Your task to perform on an android device: Open the calendar and show me this week's events Image 0: 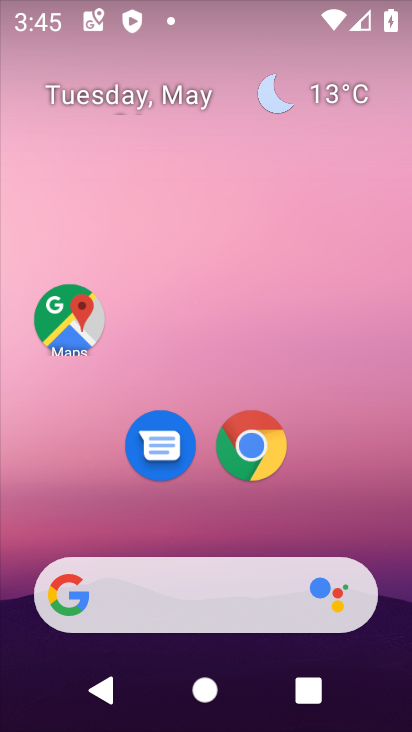
Step 0: click (217, 76)
Your task to perform on an android device: Open the calendar and show me this week's events Image 1: 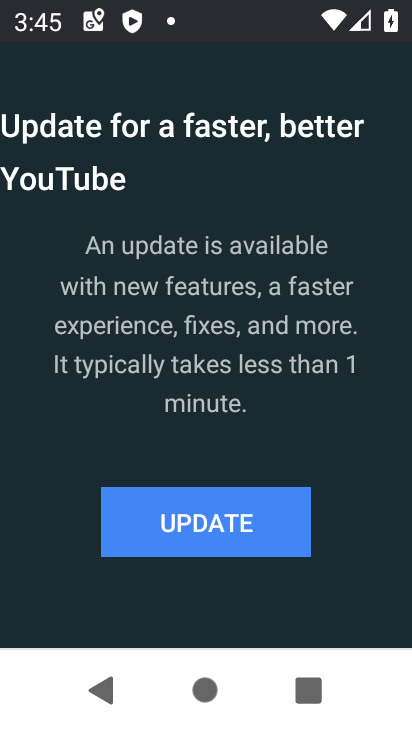
Step 1: press home button
Your task to perform on an android device: Open the calendar and show me this week's events Image 2: 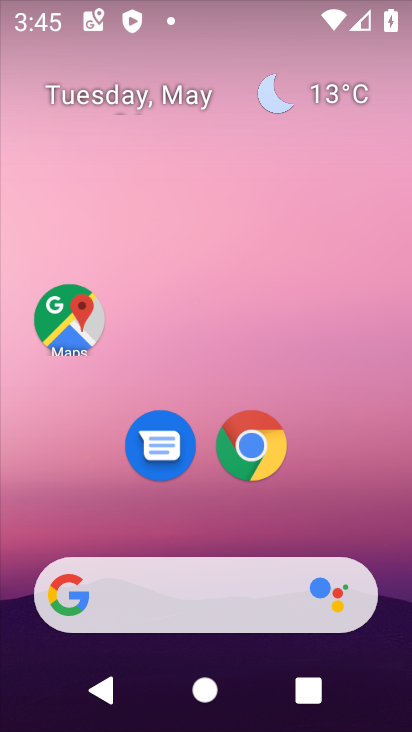
Step 2: drag from (210, 536) to (208, 57)
Your task to perform on an android device: Open the calendar and show me this week's events Image 3: 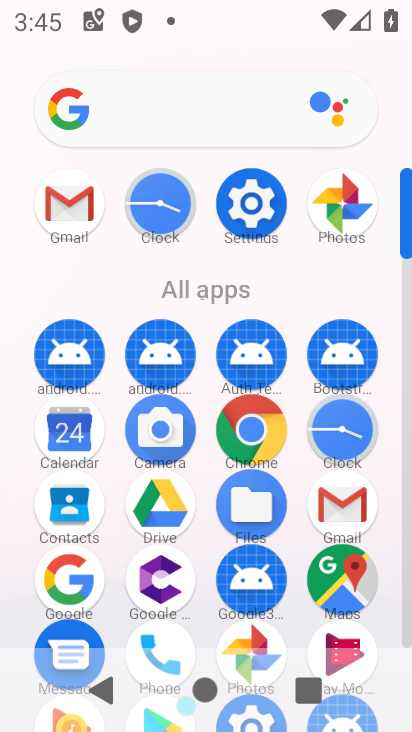
Step 3: click (70, 425)
Your task to perform on an android device: Open the calendar and show me this week's events Image 4: 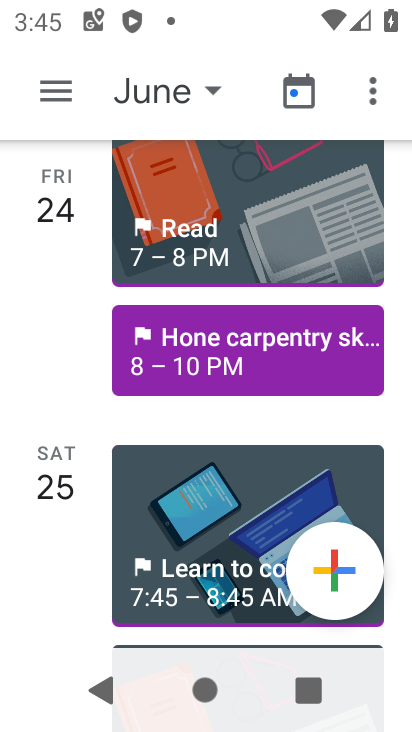
Step 4: click (211, 81)
Your task to perform on an android device: Open the calendar and show me this week's events Image 5: 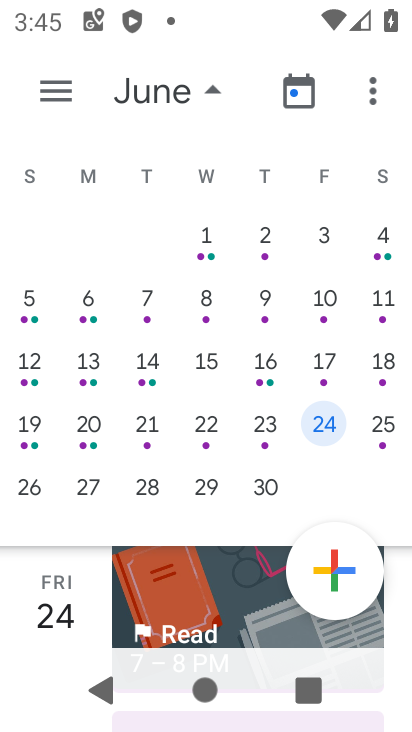
Step 5: drag from (59, 353) to (388, 382)
Your task to perform on an android device: Open the calendar and show me this week's events Image 6: 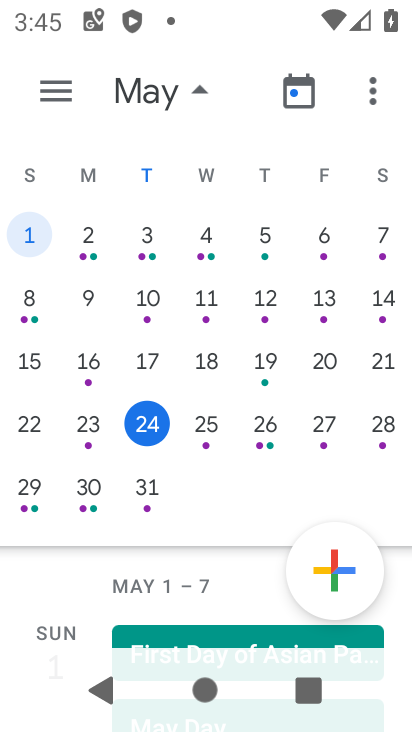
Step 6: click (151, 422)
Your task to perform on an android device: Open the calendar and show me this week's events Image 7: 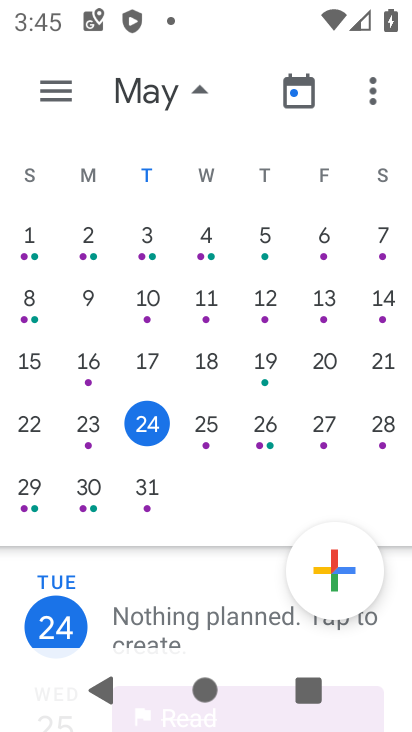
Step 7: click (55, 94)
Your task to perform on an android device: Open the calendar and show me this week's events Image 8: 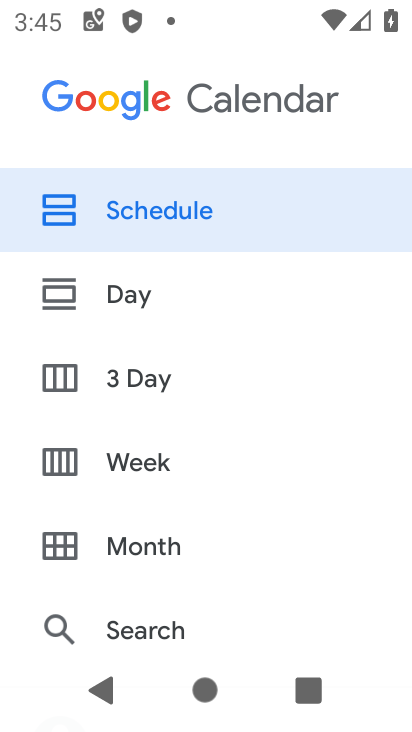
Step 8: click (122, 457)
Your task to perform on an android device: Open the calendar and show me this week's events Image 9: 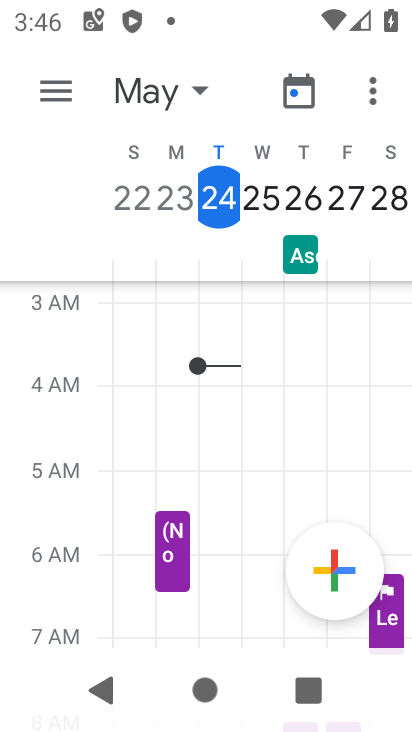
Step 9: click (223, 200)
Your task to perform on an android device: Open the calendar and show me this week's events Image 10: 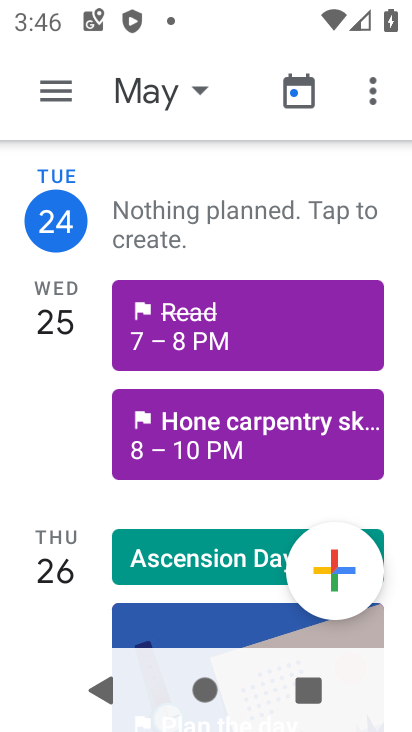
Step 10: task complete